Your task to perform on an android device: turn notification dots on Image 0: 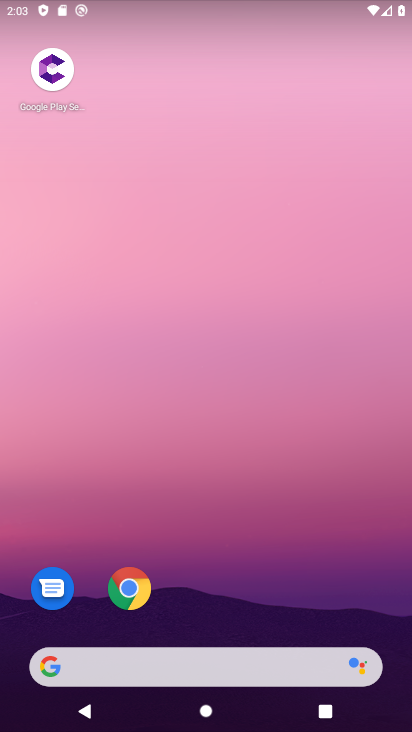
Step 0: drag from (187, 611) to (211, 242)
Your task to perform on an android device: turn notification dots on Image 1: 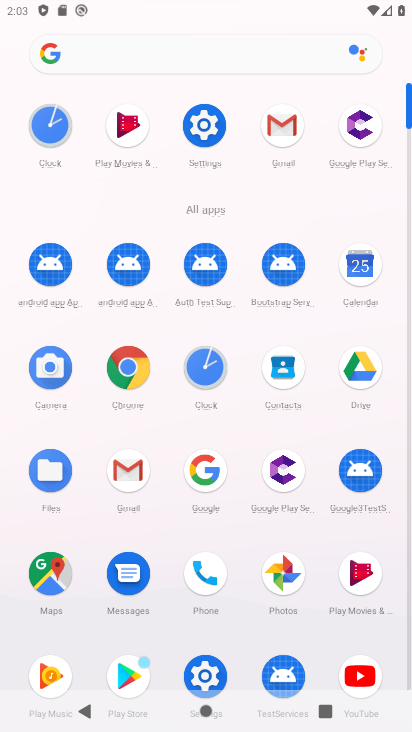
Step 1: click (200, 124)
Your task to perform on an android device: turn notification dots on Image 2: 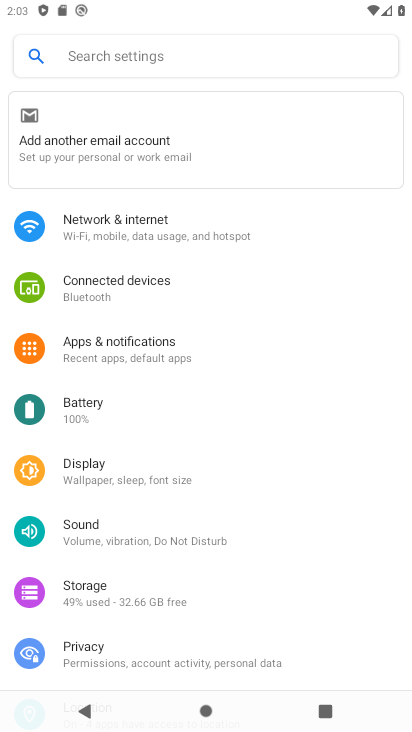
Step 2: click (134, 352)
Your task to perform on an android device: turn notification dots on Image 3: 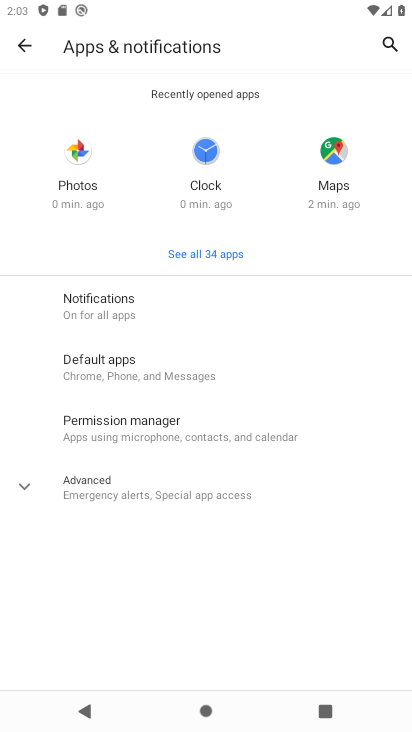
Step 3: click (122, 311)
Your task to perform on an android device: turn notification dots on Image 4: 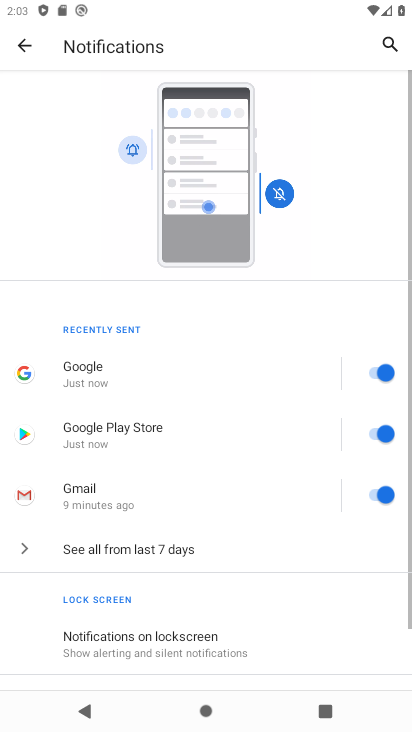
Step 4: drag from (162, 390) to (234, 88)
Your task to perform on an android device: turn notification dots on Image 5: 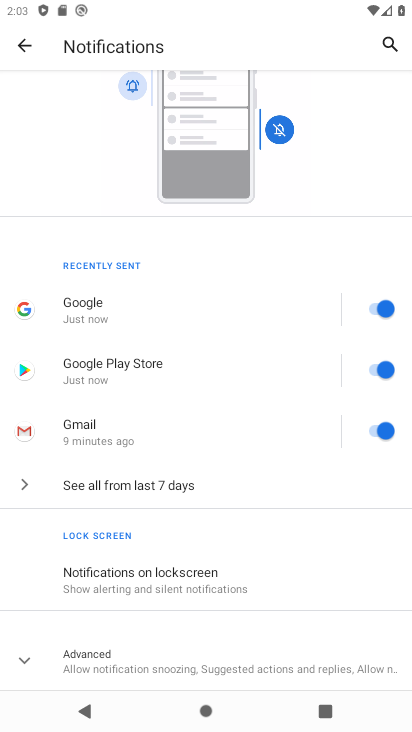
Step 5: click (99, 584)
Your task to perform on an android device: turn notification dots on Image 6: 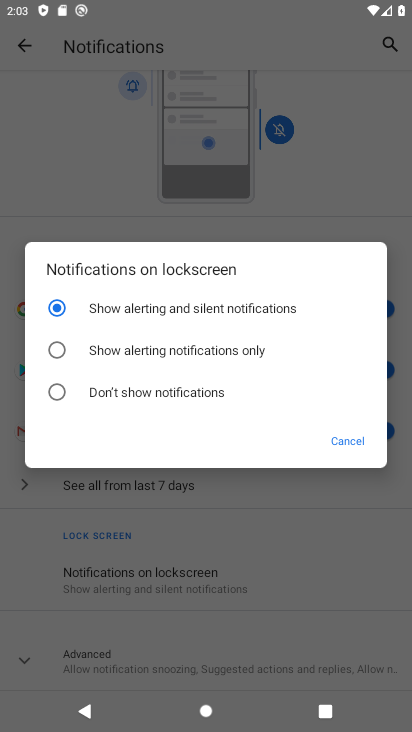
Step 6: click (68, 636)
Your task to perform on an android device: turn notification dots on Image 7: 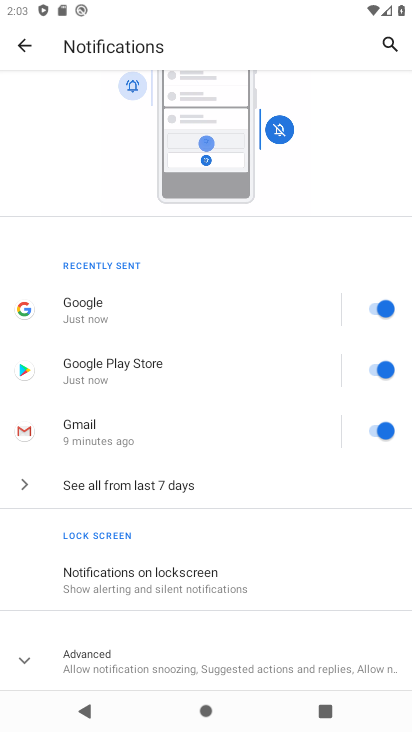
Step 7: click (29, 661)
Your task to perform on an android device: turn notification dots on Image 8: 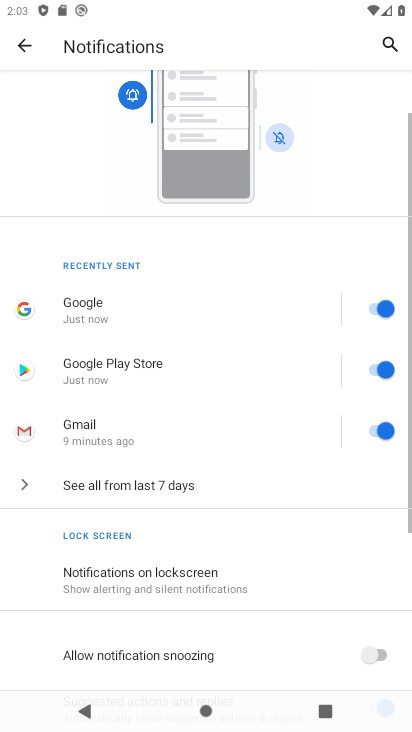
Step 8: task complete